Your task to perform on an android device: Open Google Chrome Image 0: 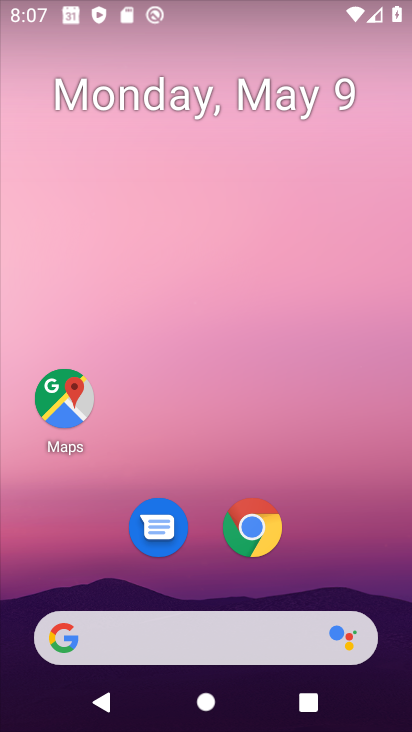
Step 0: click (231, 528)
Your task to perform on an android device: Open Google Chrome Image 1: 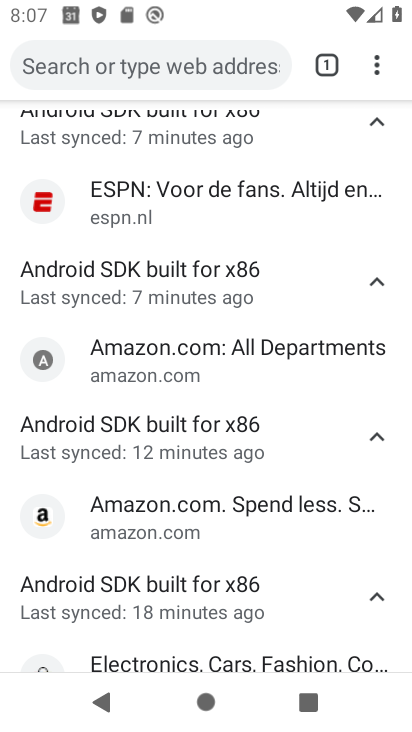
Step 1: click (326, 61)
Your task to perform on an android device: Open Google Chrome Image 2: 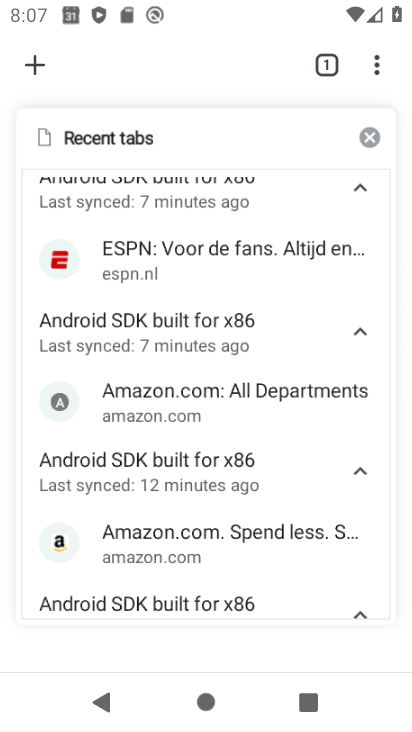
Step 2: click (364, 133)
Your task to perform on an android device: Open Google Chrome Image 3: 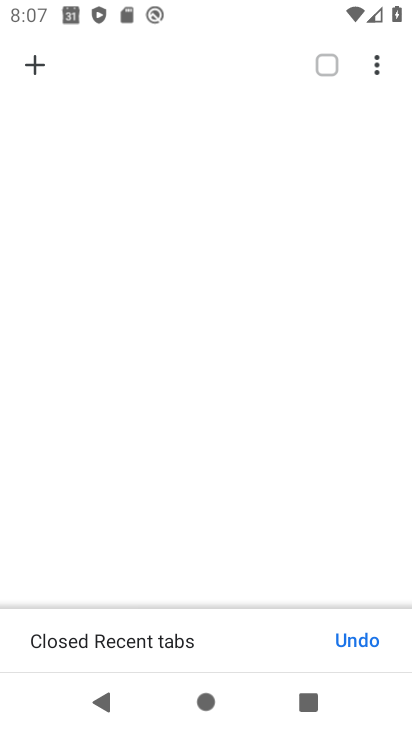
Step 3: click (38, 64)
Your task to perform on an android device: Open Google Chrome Image 4: 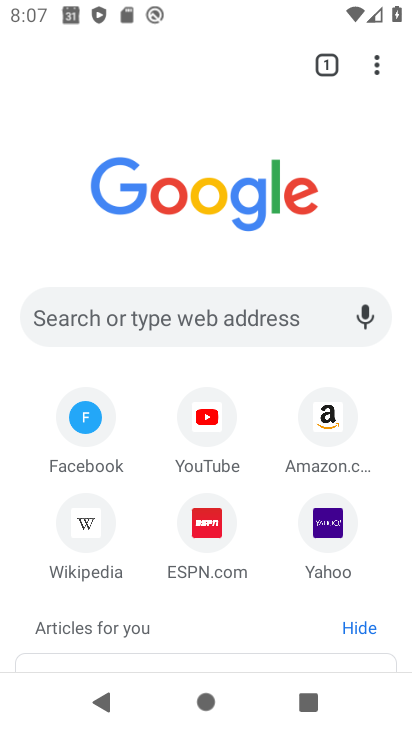
Step 4: task complete